Your task to perform on an android device: When is my next appointment? Image 0: 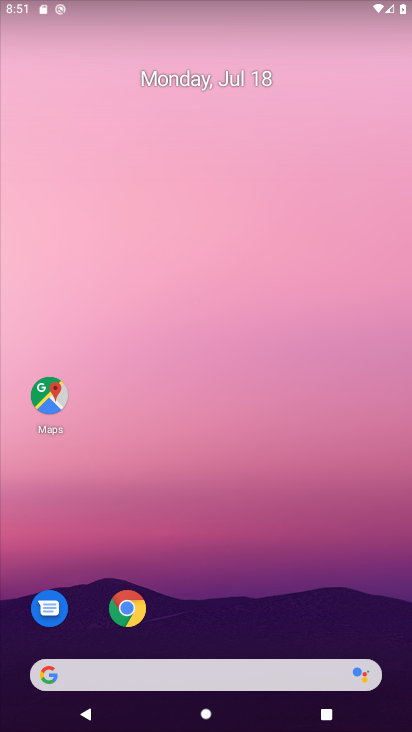
Step 0: drag from (235, 519) to (222, 86)
Your task to perform on an android device: When is my next appointment? Image 1: 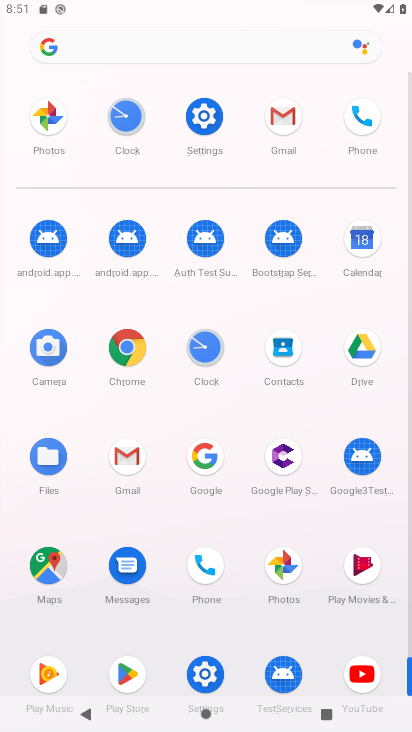
Step 1: click (363, 242)
Your task to perform on an android device: When is my next appointment? Image 2: 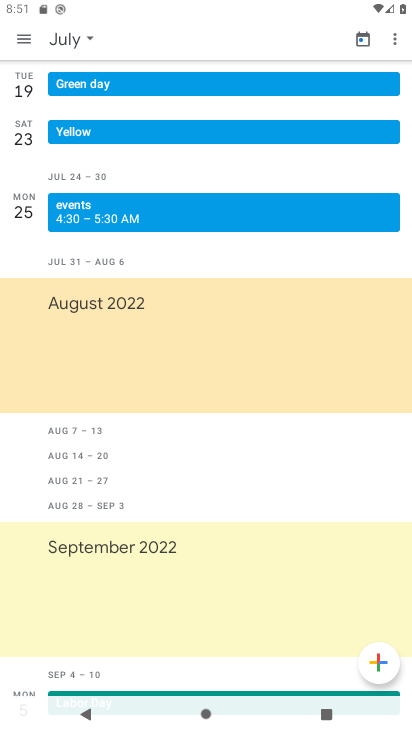
Step 2: click (367, 39)
Your task to perform on an android device: When is my next appointment? Image 3: 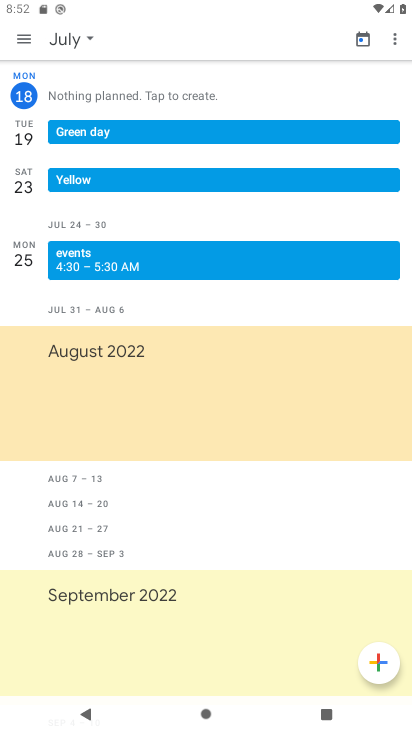
Step 3: click (85, 38)
Your task to perform on an android device: When is my next appointment? Image 4: 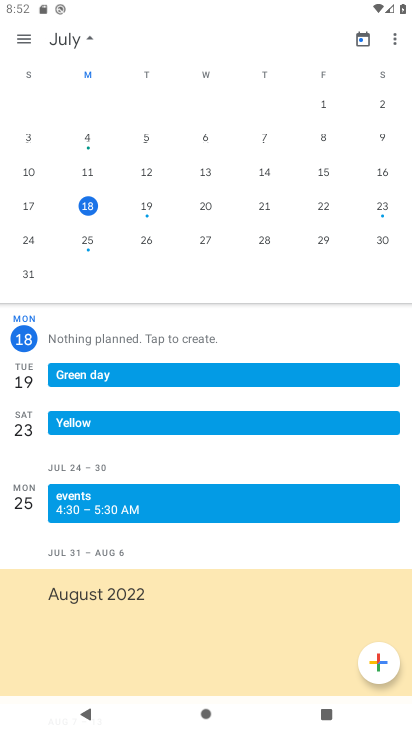
Step 4: click (149, 212)
Your task to perform on an android device: When is my next appointment? Image 5: 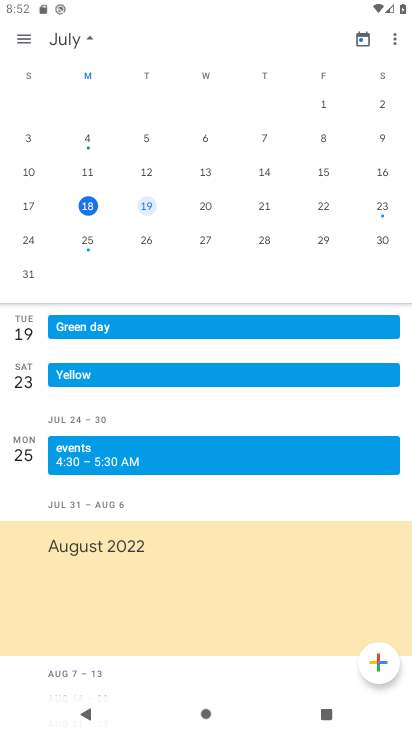
Step 5: click (22, 40)
Your task to perform on an android device: When is my next appointment? Image 6: 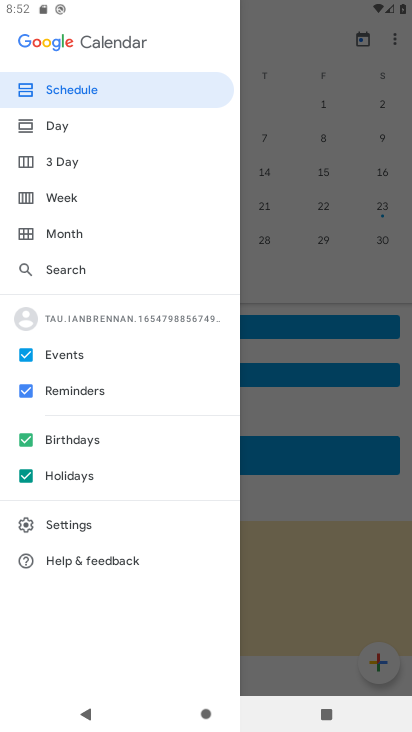
Step 6: click (43, 84)
Your task to perform on an android device: When is my next appointment? Image 7: 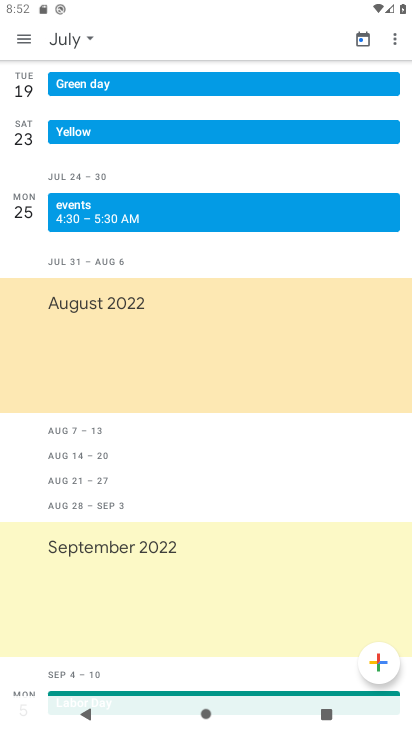
Step 7: task complete